Your task to perform on an android device: turn off location Image 0: 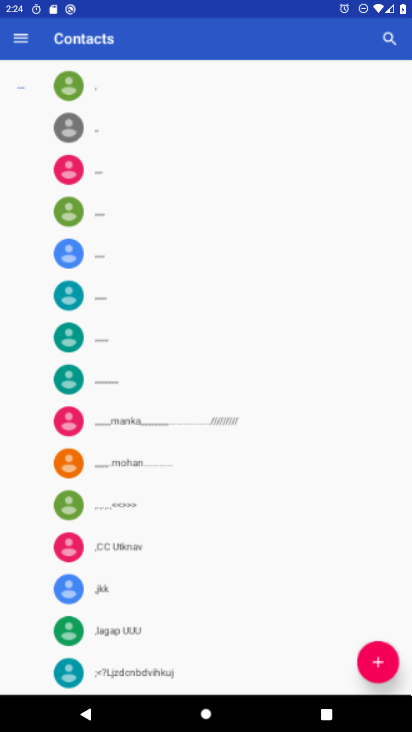
Step 0: click (289, 267)
Your task to perform on an android device: turn off location Image 1: 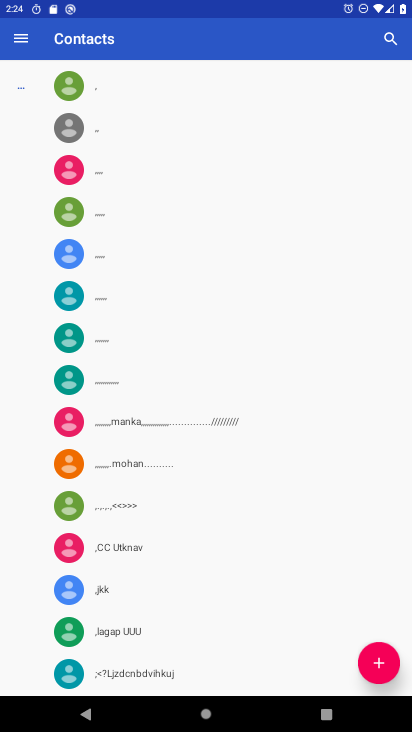
Step 1: press home button
Your task to perform on an android device: turn off location Image 2: 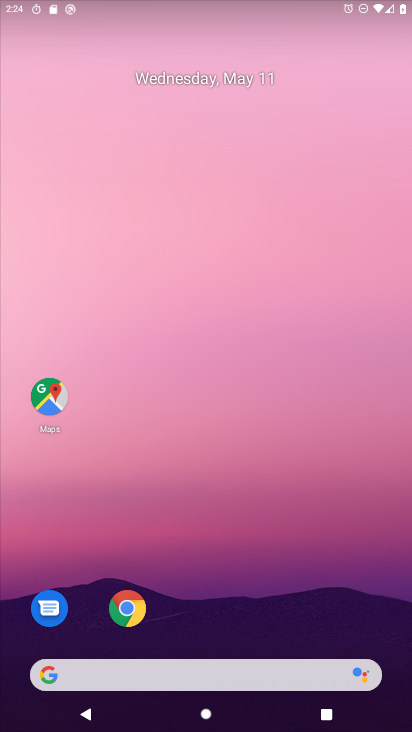
Step 2: drag from (255, 612) to (258, 185)
Your task to perform on an android device: turn off location Image 3: 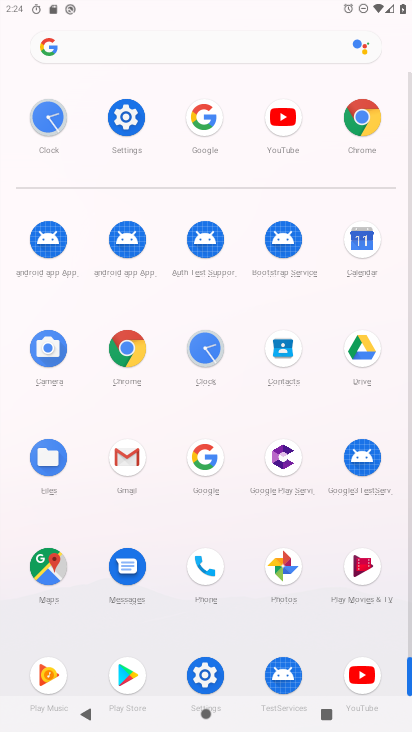
Step 3: click (364, 149)
Your task to perform on an android device: turn off location Image 4: 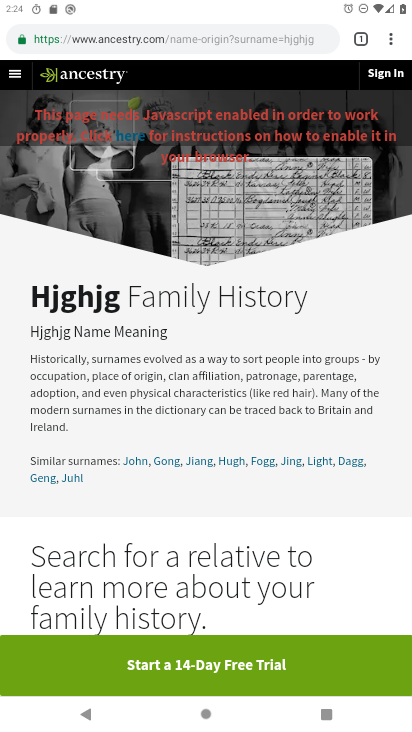
Step 4: press home button
Your task to perform on an android device: turn off location Image 5: 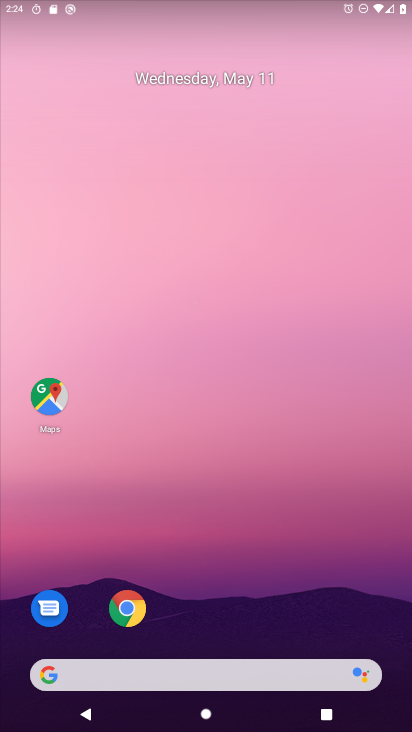
Step 5: drag from (195, 505) to (243, 84)
Your task to perform on an android device: turn off location Image 6: 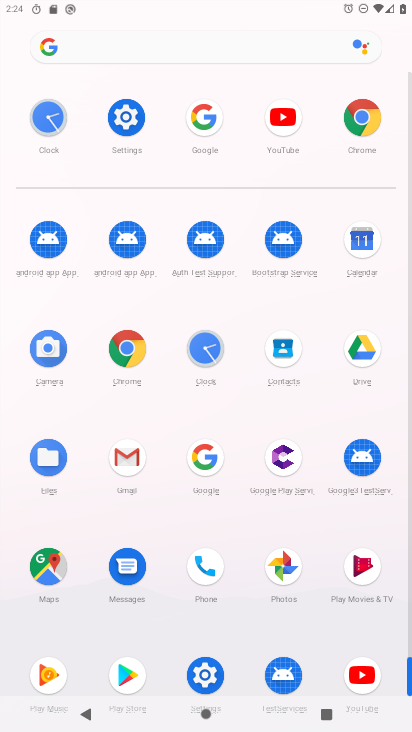
Step 6: click (132, 136)
Your task to perform on an android device: turn off location Image 7: 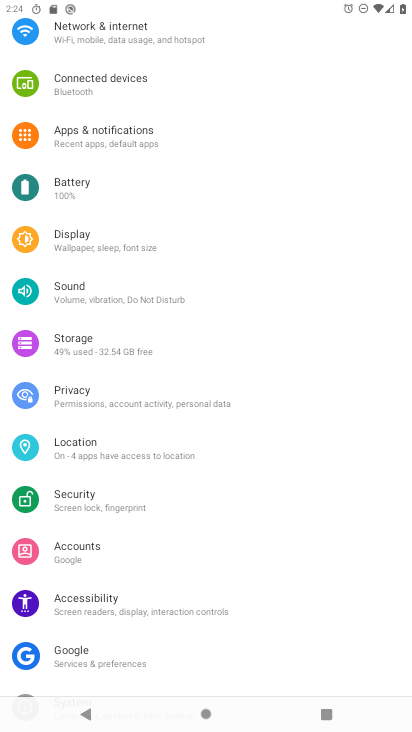
Step 7: click (123, 460)
Your task to perform on an android device: turn off location Image 8: 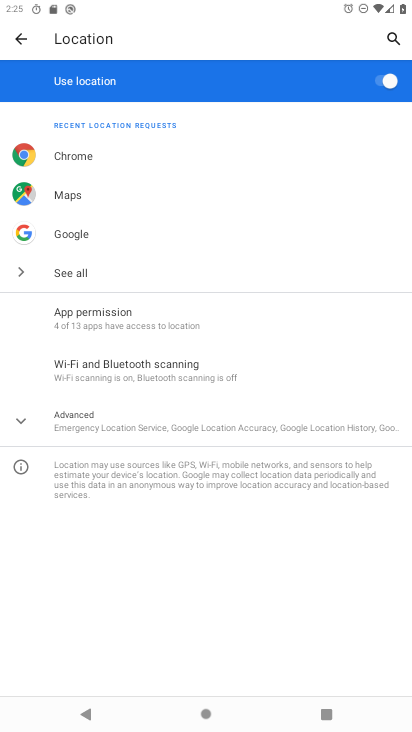
Step 8: click (359, 70)
Your task to perform on an android device: turn off location Image 9: 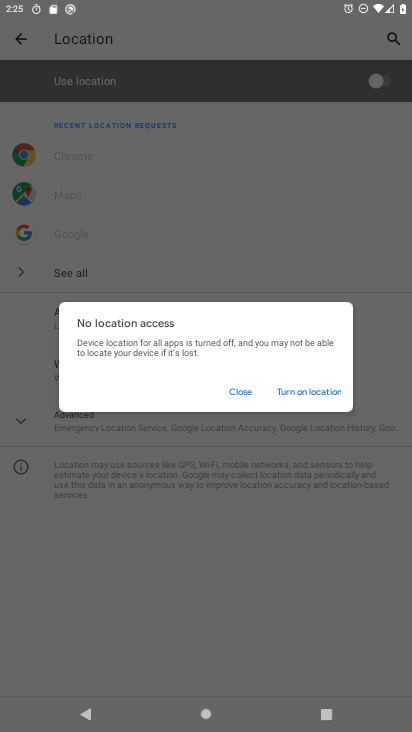
Step 9: task complete